Your task to perform on an android device: change the clock display to digital Image 0: 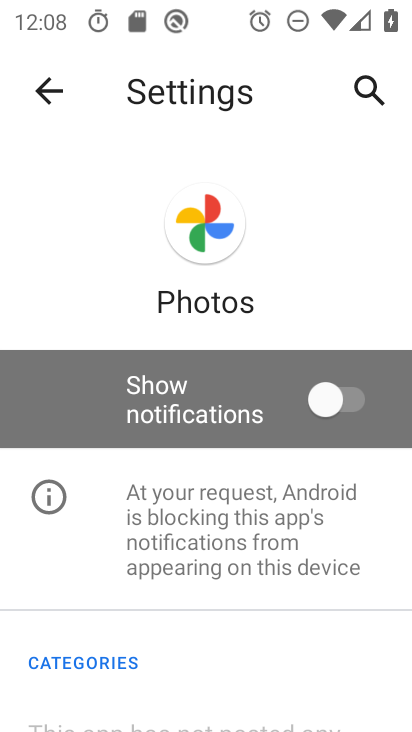
Step 0: press home button
Your task to perform on an android device: change the clock display to digital Image 1: 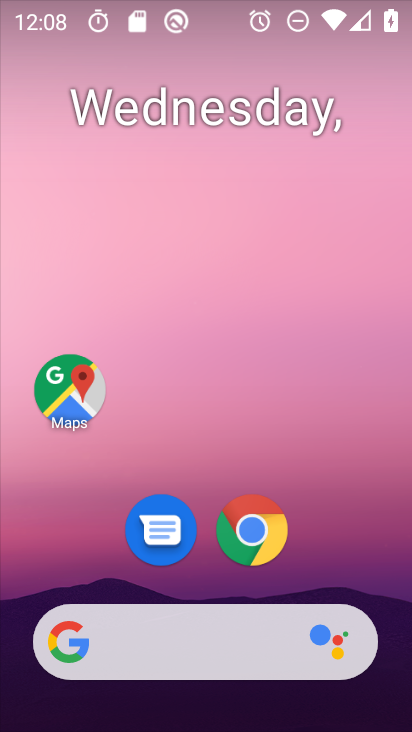
Step 1: drag from (327, 512) to (215, 103)
Your task to perform on an android device: change the clock display to digital Image 2: 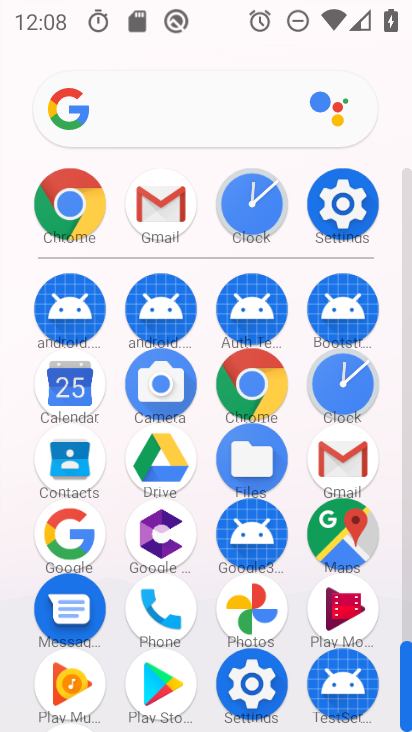
Step 2: click (339, 384)
Your task to perform on an android device: change the clock display to digital Image 3: 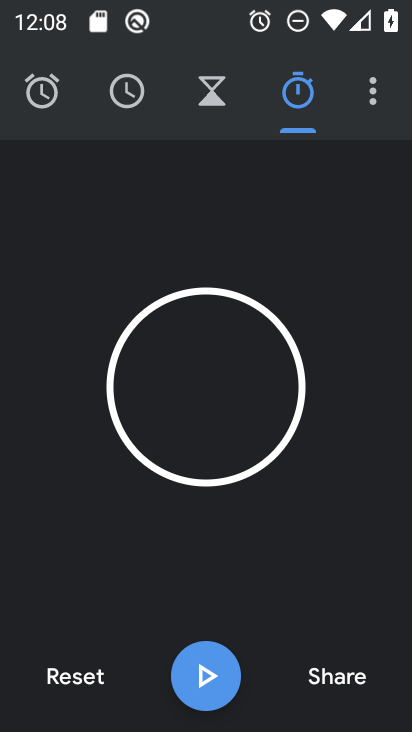
Step 3: click (378, 100)
Your task to perform on an android device: change the clock display to digital Image 4: 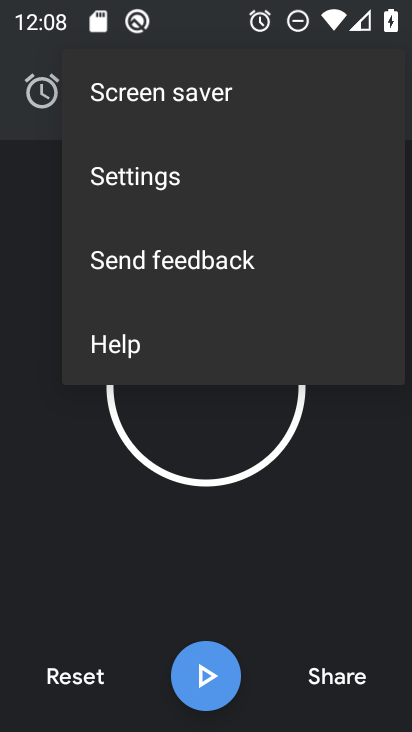
Step 4: click (181, 182)
Your task to perform on an android device: change the clock display to digital Image 5: 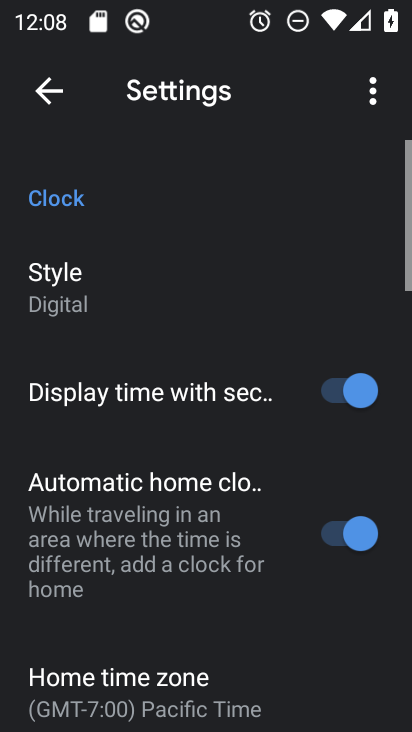
Step 5: click (83, 284)
Your task to perform on an android device: change the clock display to digital Image 6: 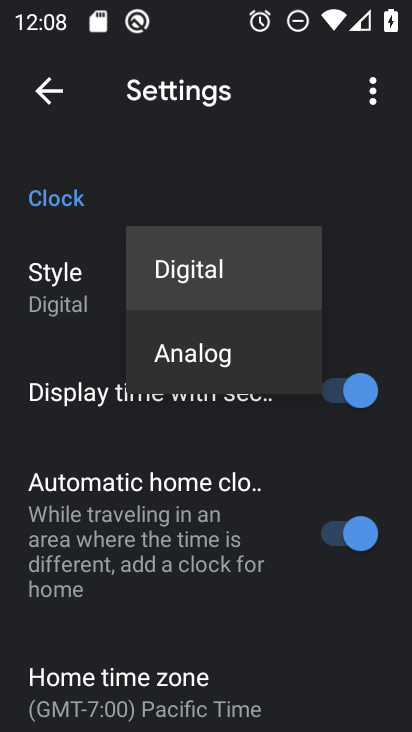
Step 6: task complete